Your task to perform on an android device: Open sound settings Image 0: 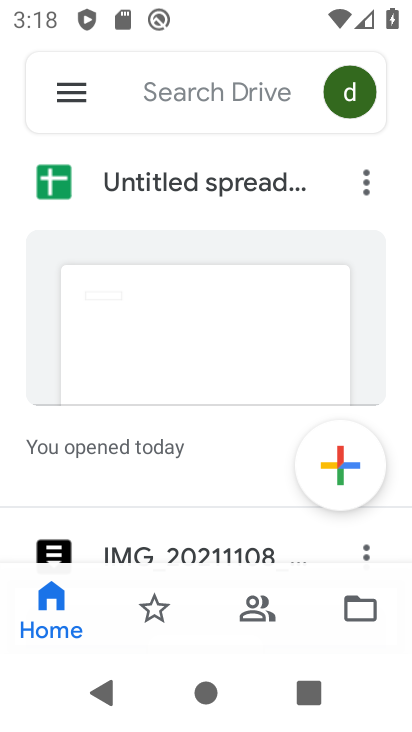
Step 0: press home button
Your task to perform on an android device: Open sound settings Image 1: 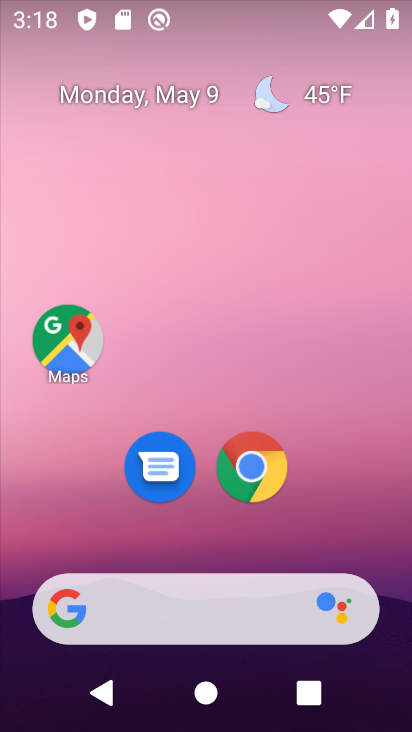
Step 1: drag from (324, 525) to (377, 102)
Your task to perform on an android device: Open sound settings Image 2: 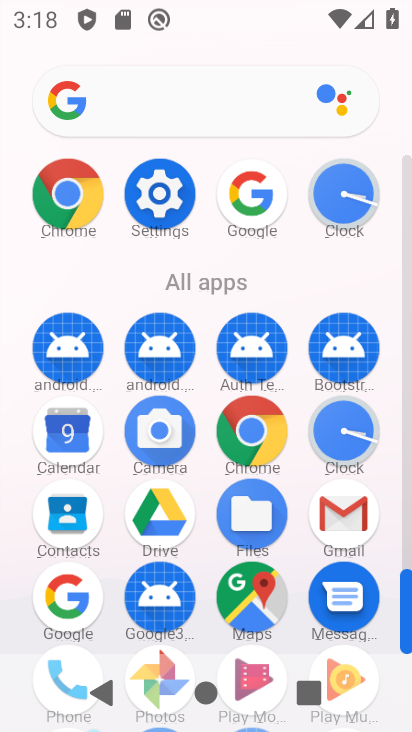
Step 2: click (173, 209)
Your task to perform on an android device: Open sound settings Image 3: 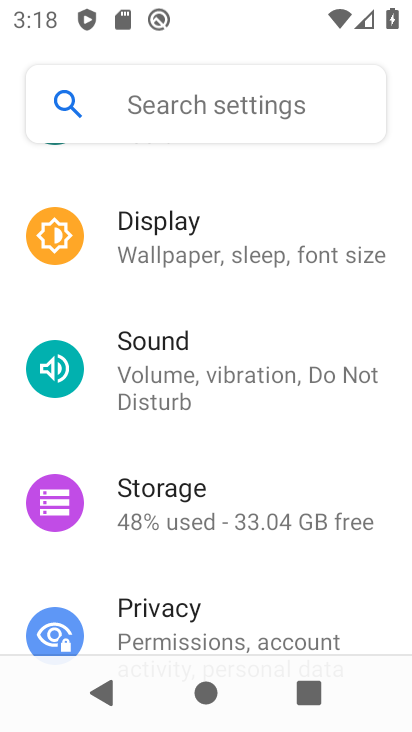
Step 3: click (194, 410)
Your task to perform on an android device: Open sound settings Image 4: 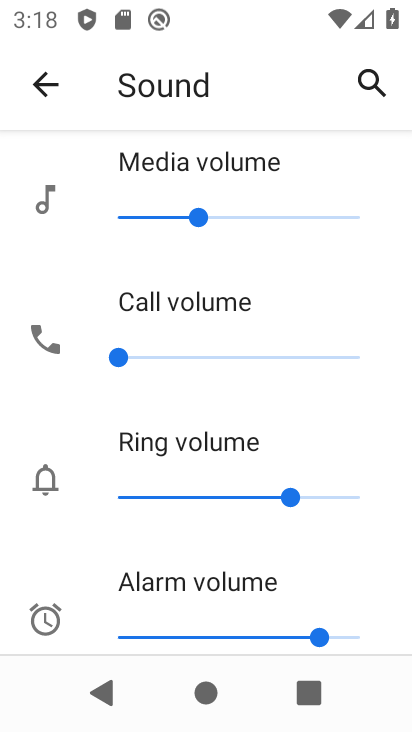
Step 4: task complete